Your task to perform on an android device: Go to eBay Image 0: 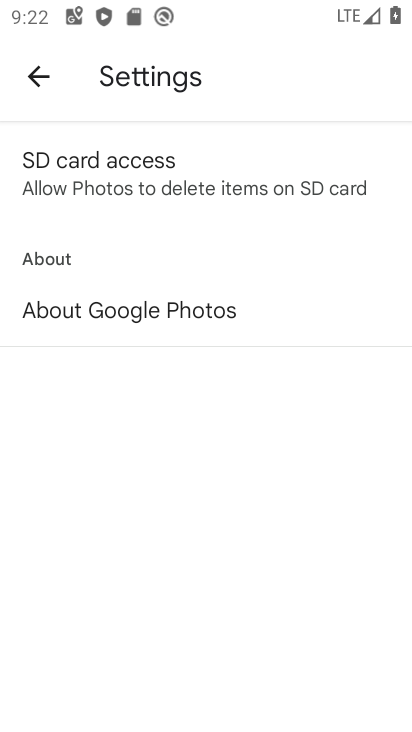
Step 0: press home button
Your task to perform on an android device: Go to eBay Image 1: 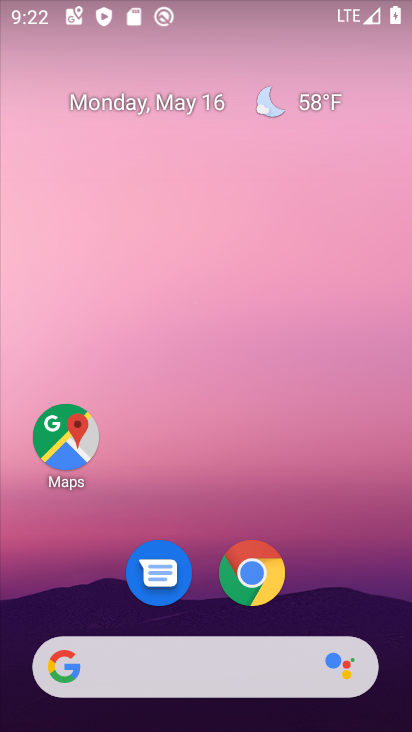
Step 1: click (251, 573)
Your task to perform on an android device: Go to eBay Image 2: 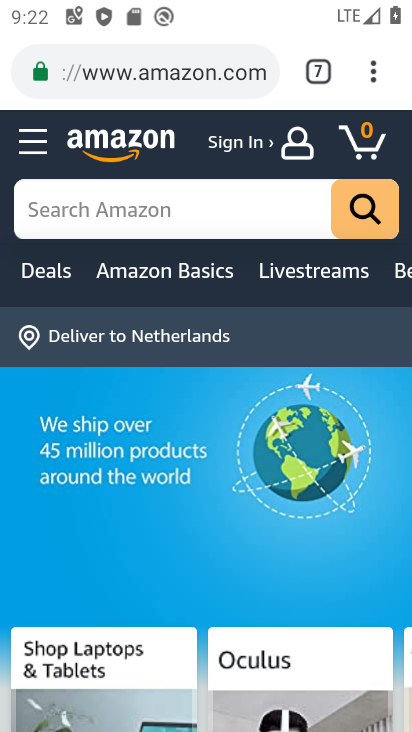
Step 2: click (375, 78)
Your task to perform on an android device: Go to eBay Image 3: 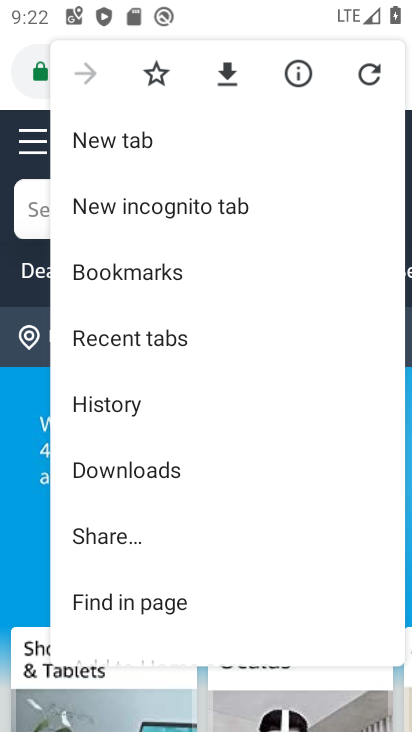
Step 3: click (99, 145)
Your task to perform on an android device: Go to eBay Image 4: 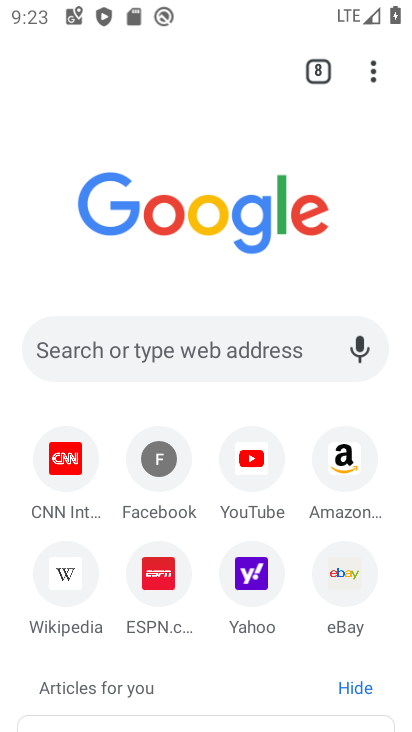
Step 4: click (168, 339)
Your task to perform on an android device: Go to eBay Image 5: 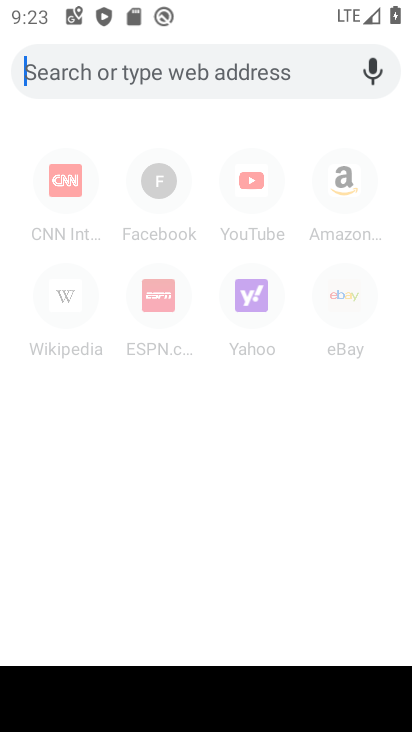
Step 5: type "eBay"
Your task to perform on an android device: Go to eBay Image 6: 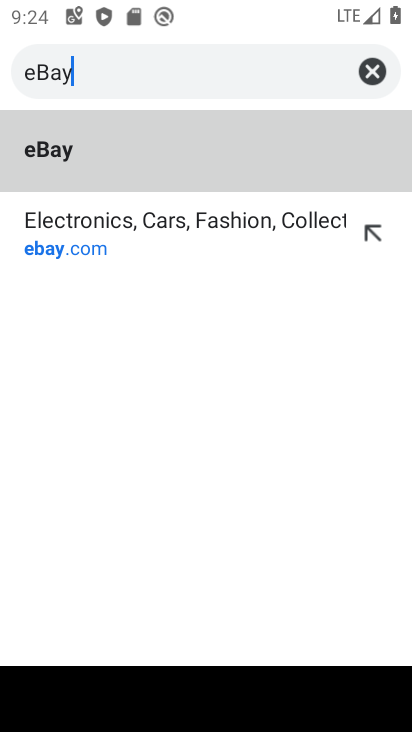
Step 6: click (115, 128)
Your task to perform on an android device: Go to eBay Image 7: 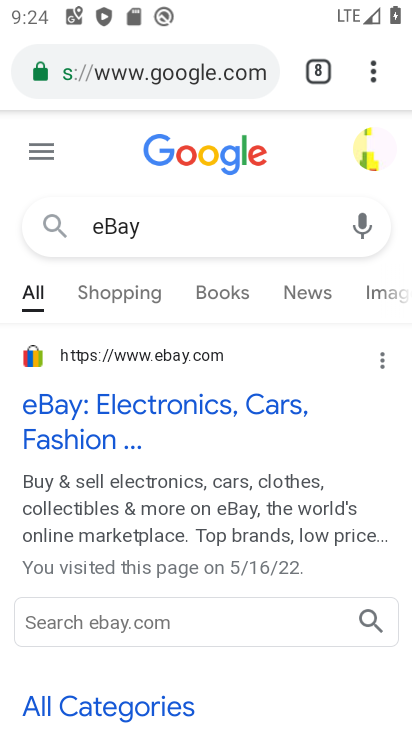
Step 7: click (115, 403)
Your task to perform on an android device: Go to eBay Image 8: 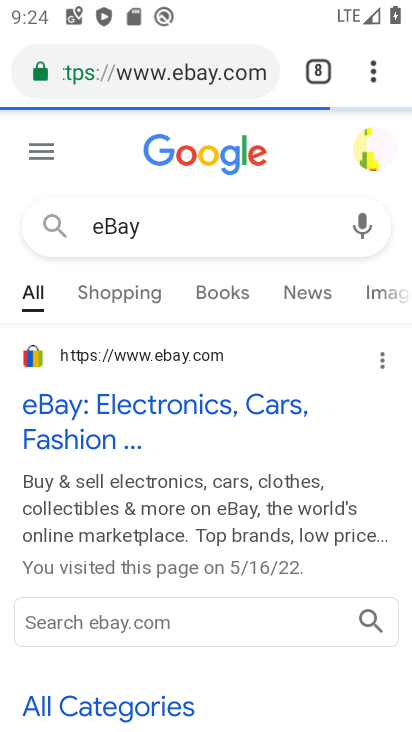
Step 8: task complete